Your task to perform on an android device: check android version Image 0: 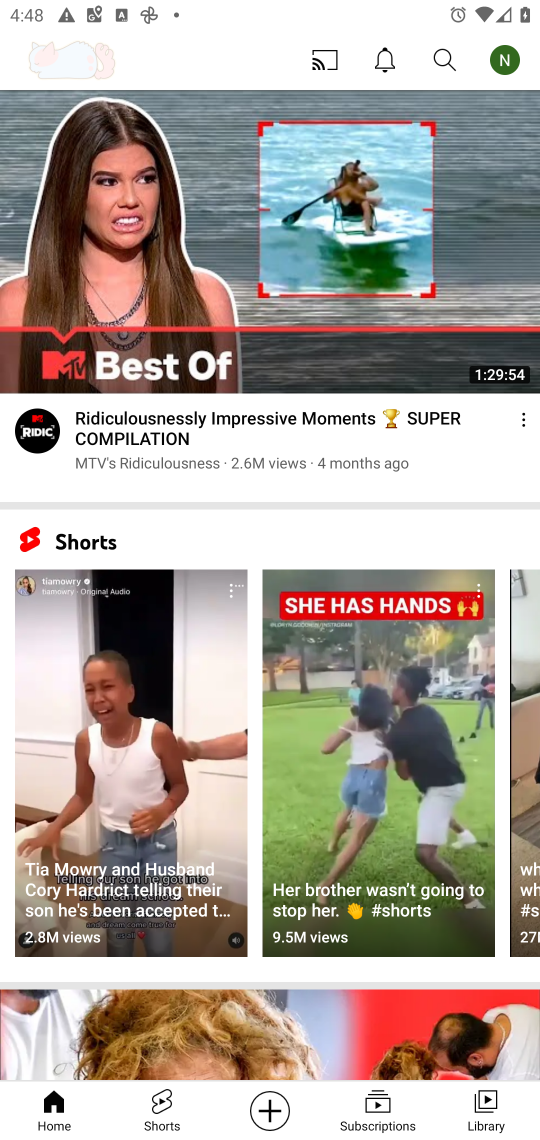
Step 0: press home button
Your task to perform on an android device: check android version Image 1: 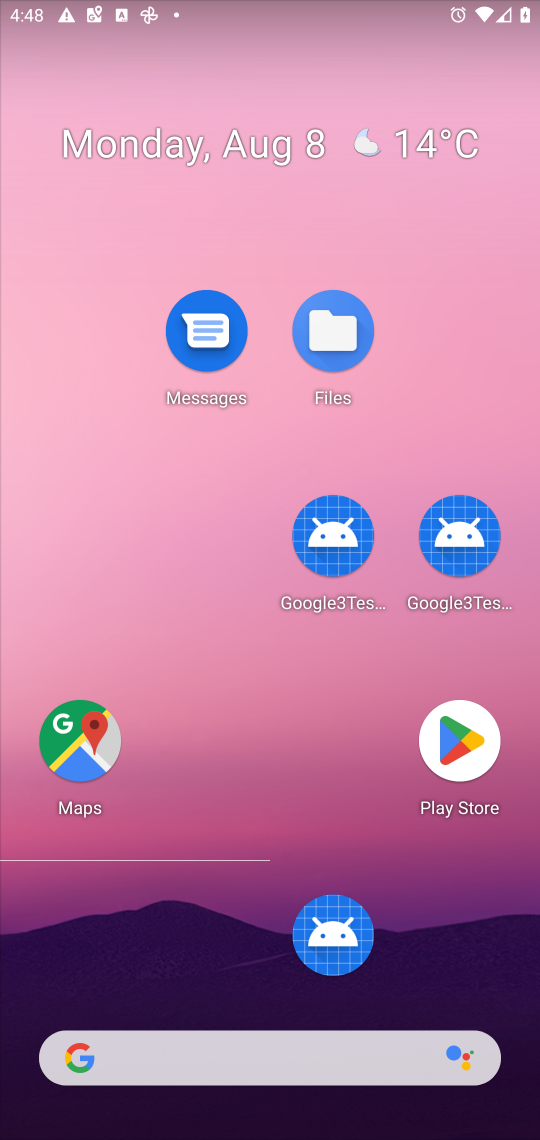
Step 1: drag from (302, 1052) to (256, 62)
Your task to perform on an android device: check android version Image 2: 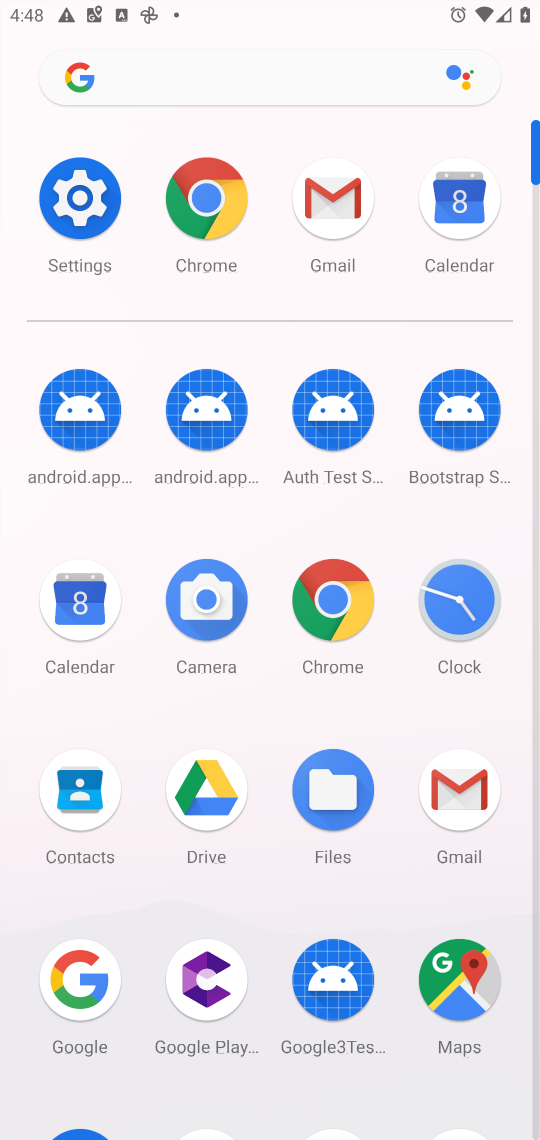
Step 2: click (345, 611)
Your task to perform on an android device: check android version Image 3: 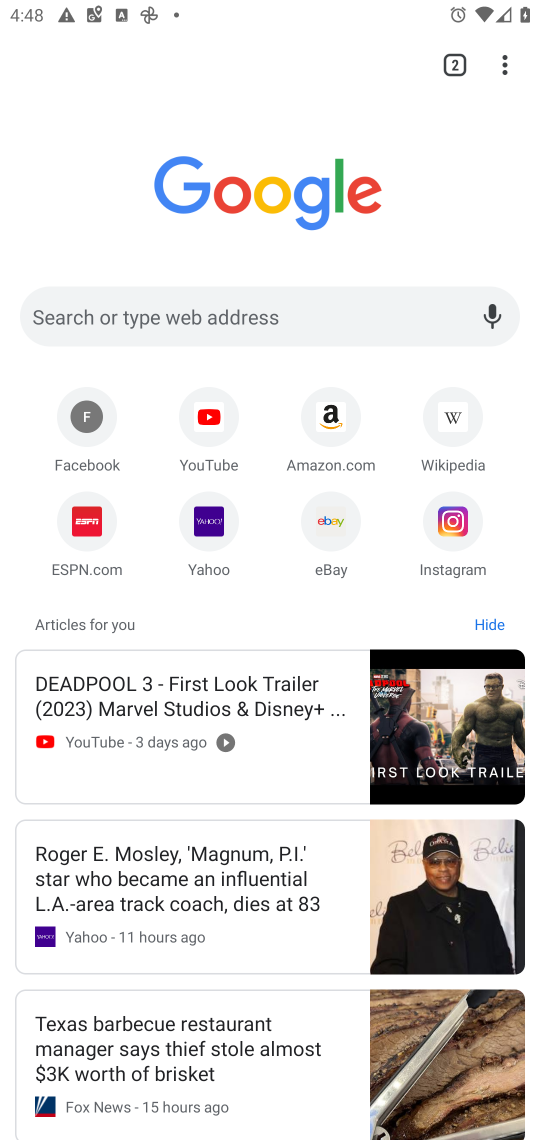
Step 3: press home button
Your task to perform on an android device: check android version Image 4: 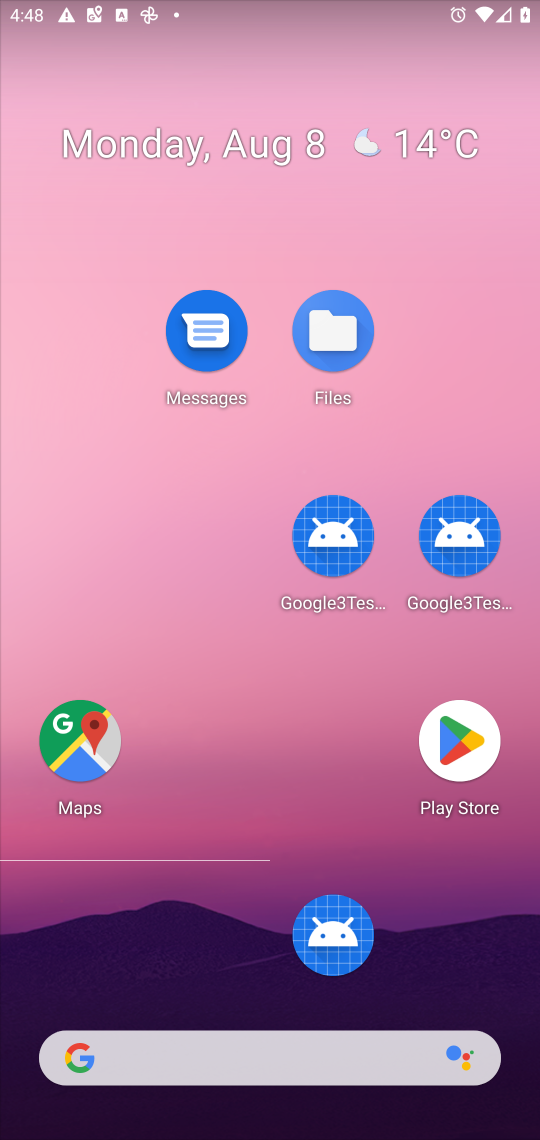
Step 4: drag from (234, 1041) to (220, 191)
Your task to perform on an android device: check android version Image 5: 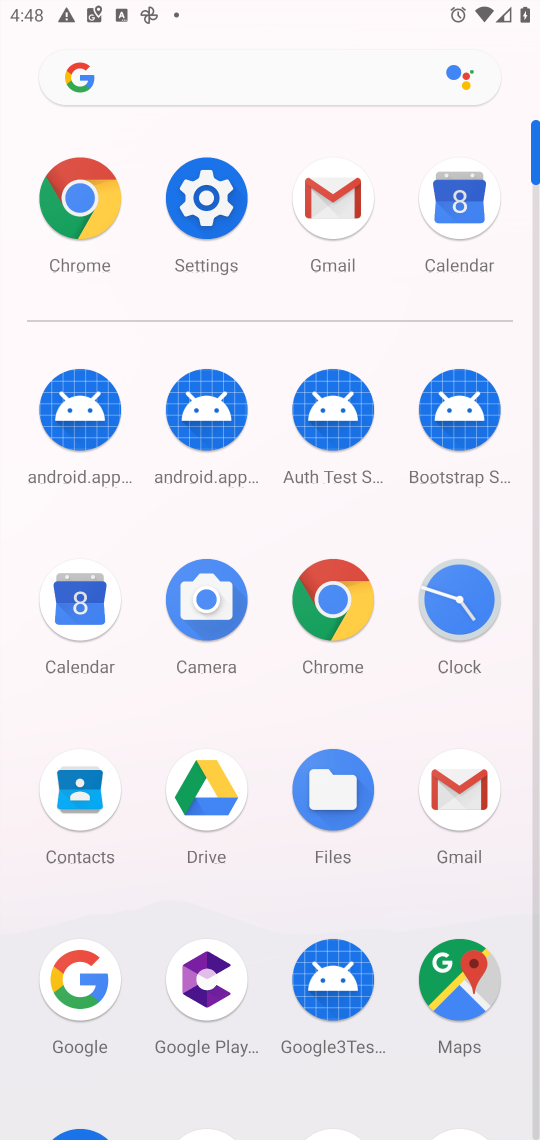
Step 5: click (204, 216)
Your task to perform on an android device: check android version Image 6: 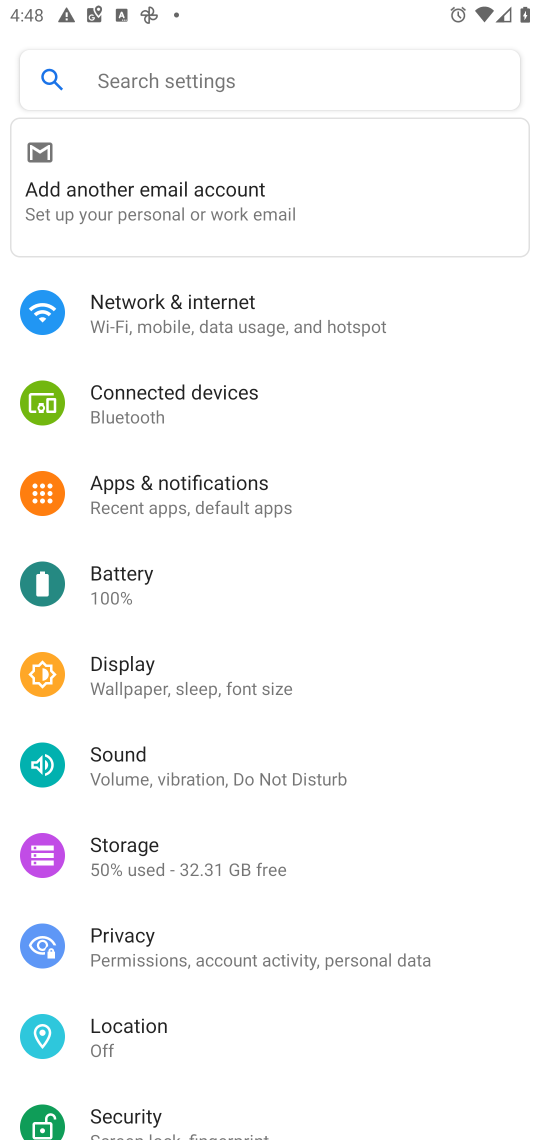
Step 6: drag from (492, 1116) to (441, 229)
Your task to perform on an android device: check android version Image 7: 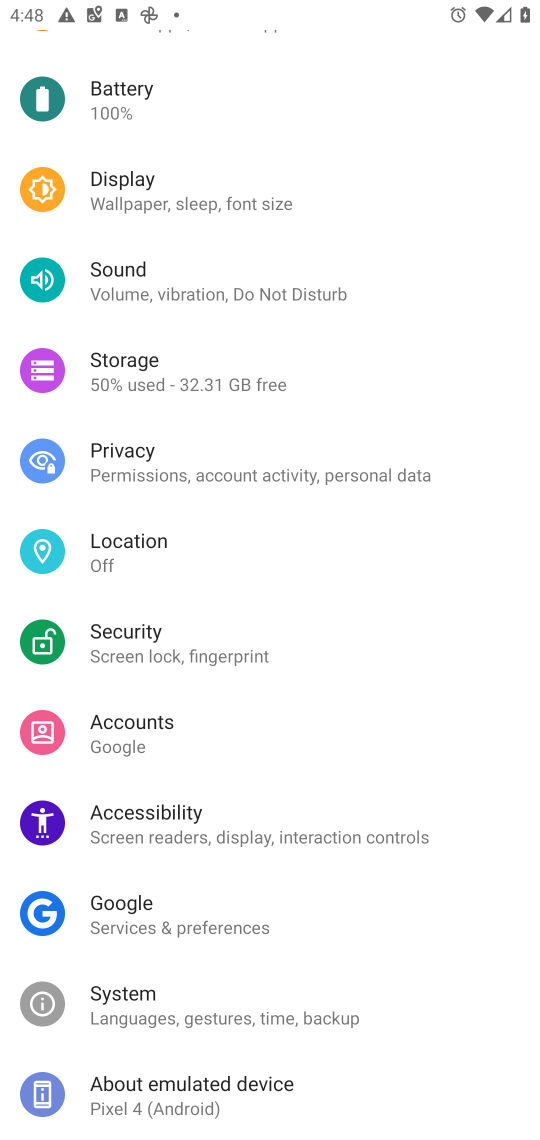
Step 7: click (223, 1070)
Your task to perform on an android device: check android version Image 8: 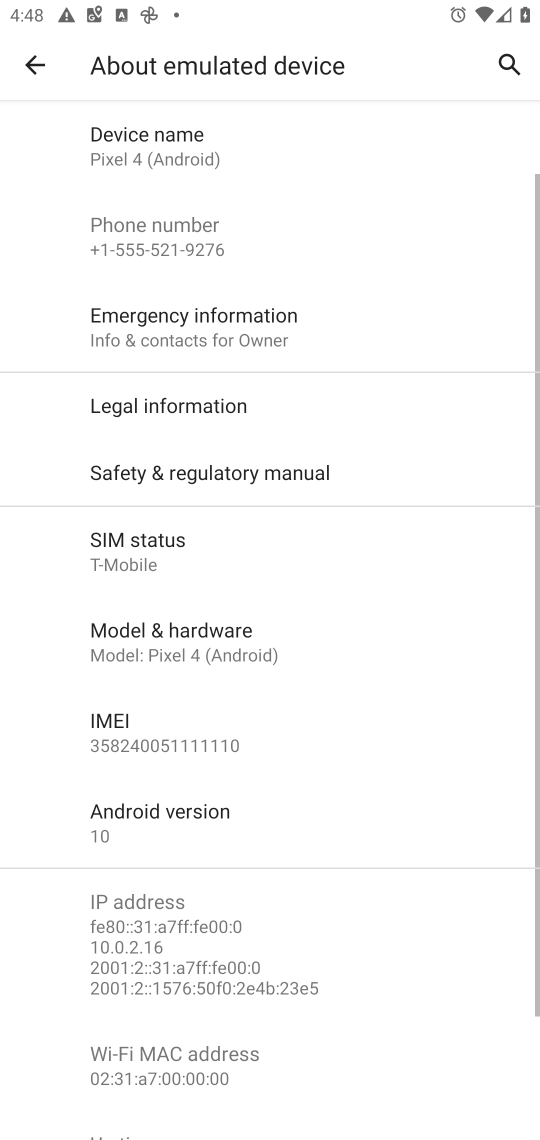
Step 8: task complete